Your task to perform on an android device: star an email in the gmail app Image 0: 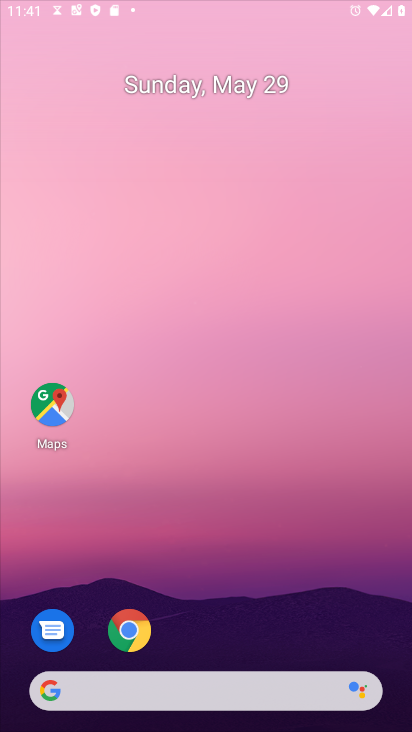
Step 0: drag from (225, 595) to (225, 63)
Your task to perform on an android device: star an email in the gmail app Image 1: 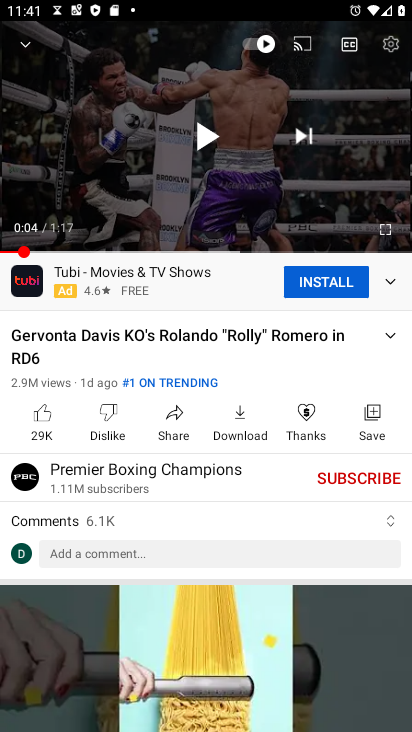
Step 1: press home button
Your task to perform on an android device: star an email in the gmail app Image 2: 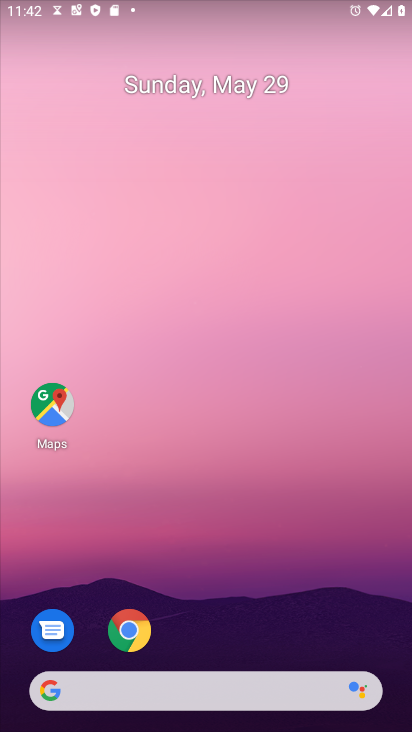
Step 2: drag from (292, 593) to (282, 25)
Your task to perform on an android device: star an email in the gmail app Image 3: 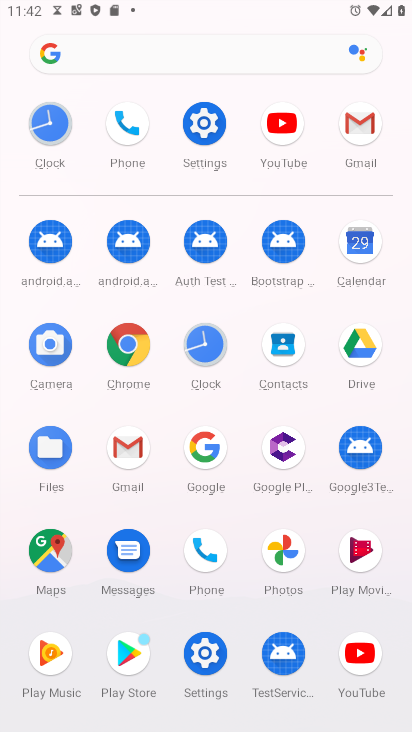
Step 3: click (366, 137)
Your task to perform on an android device: star an email in the gmail app Image 4: 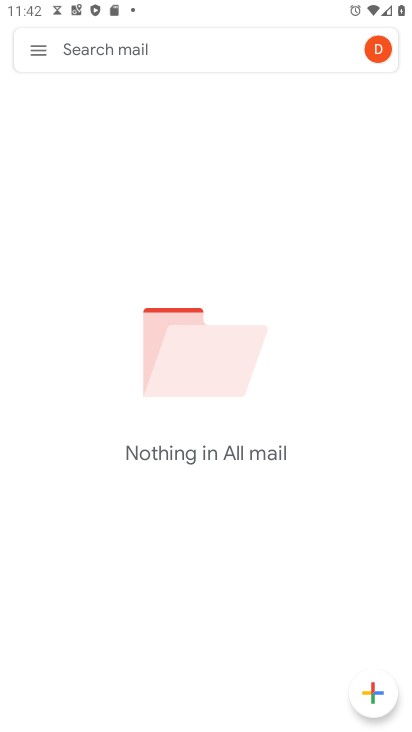
Step 4: click (40, 54)
Your task to perform on an android device: star an email in the gmail app Image 5: 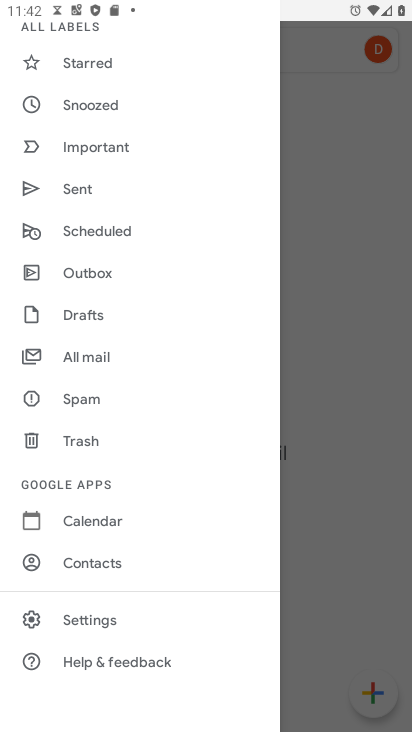
Step 5: click (52, 62)
Your task to perform on an android device: star an email in the gmail app Image 6: 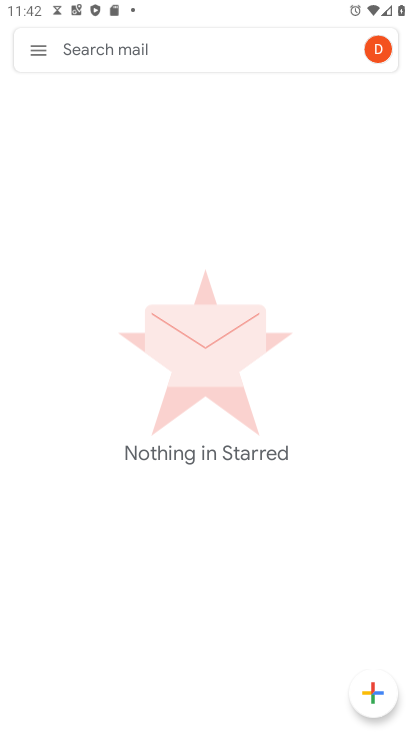
Step 6: task complete